Your task to perform on an android device: Clear all items from cart on newegg. Add "usb-a to usb-b" to the cart on newegg Image 0: 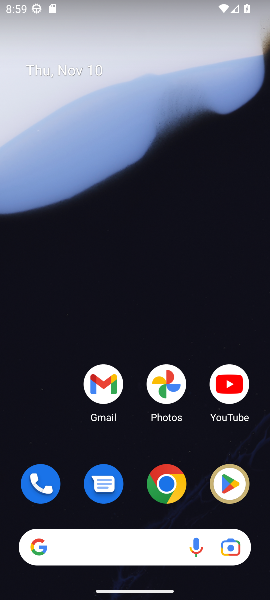
Step 0: click (167, 487)
Your task to perform on an android device: Clear all items from cart on newegg. Add "usb-a to usb-b" to the cart on newegg Image 1: 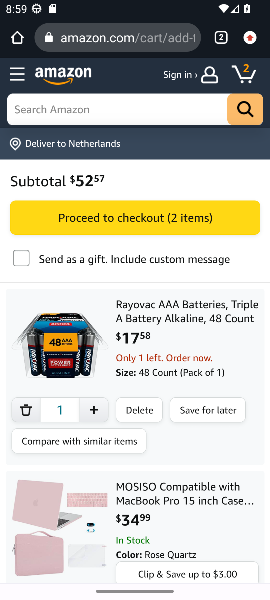
Step 1: click (110, 38)
Your task to perform on an android device: Clear all items from cart on newegg. Add "usb-a to usb-b" to the cart on newegg Image 2: 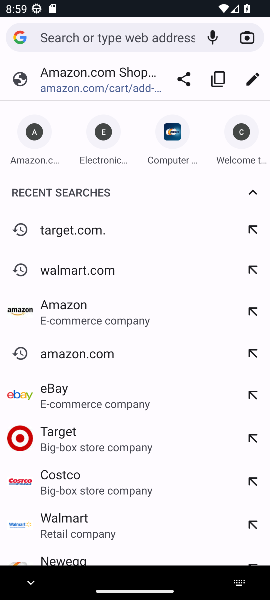
Step 2: type "newegg.com"
Your task to perform on an android device: Clear all items from cart on newegg. Add "usb-a to usb-b" to the cart on newegg Image 3: 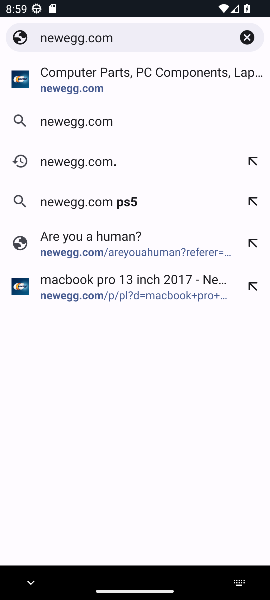
Step 3: click (30, 89)
Your task to perform on an android device: Clear all items from cart on newegg. Add "usb-a to usb-b" to the cart on newegg Image 4: 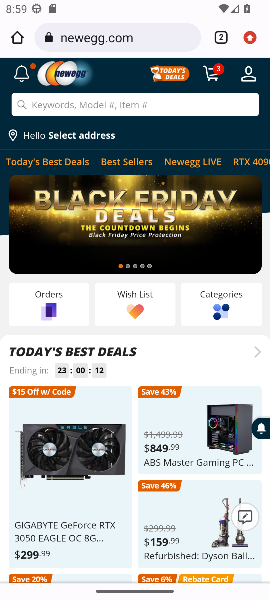
Step 4: click (214, 77)
Your task to perform on an android device: Clear all items from cart on newegg. Add "usb-a to usb-b" to the cart on newegg Image 5: 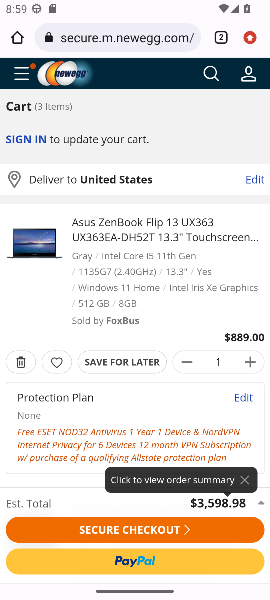
Step 5: click (23, 361)
Your task to perform on an android device: Clear all items from cart on newegg. Add "usb-a to usb-b" to the cart on newegg Image 6: 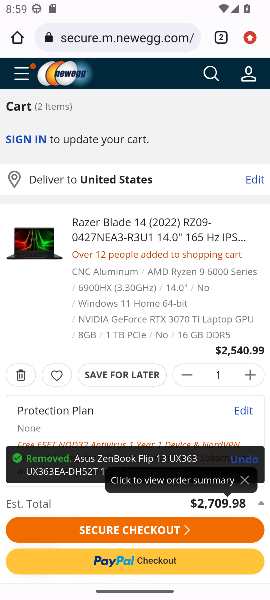
Step 6: click (18, 373)
Your task to perform on an android device: Clear all items from cart on newegg. Add "usb-a to usb-b" to the cart on newegg Image 7: 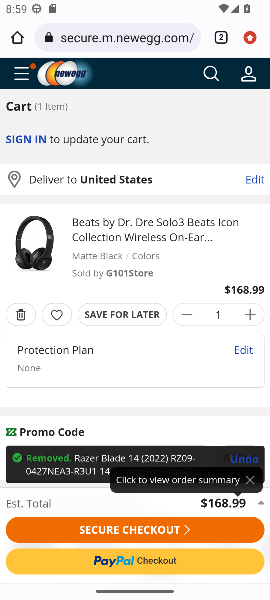
Step 7: click (22, 308)
Your task to perform on an android device: Clear all items from cart on newegg. Add "usb-a to usb-b" to the cart on newegg Image 8: 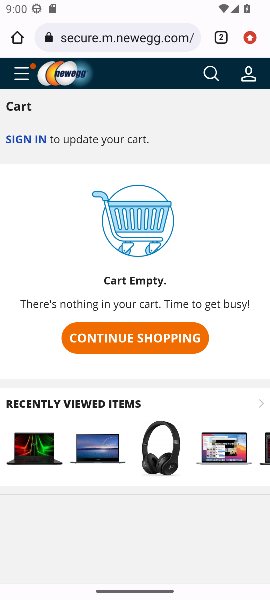
Step 8: click (135, 342)
Your task to perform on an android device: Clear all items from cart on newegg. Add "usb-a to usb-b" to the cart on newegg Image 9: 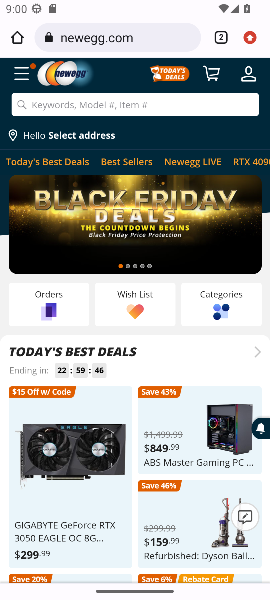
Step 9: click (158, 99)
Your task to perform on an android device: Clear all items from cart on newegg. Add "usb-a to usb-b" to the cart on newegg Image 10: 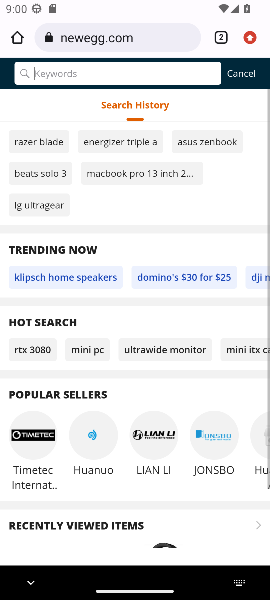
Step 10: type "usb-a to usb-b"
Your task to perform on an android device: Clear all items from cart on newegg. Add "usb-a to usb-b" to the cart on newegg Image 11: 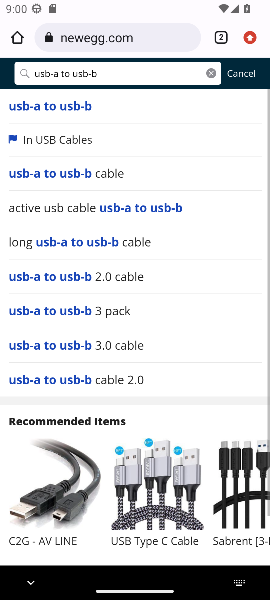
Step 11: click (76, 111)
Your task to perform on an android device: Clear all items from cart on newegg. Add "usb-a to usb-b" to the cart on newegg Image 12: 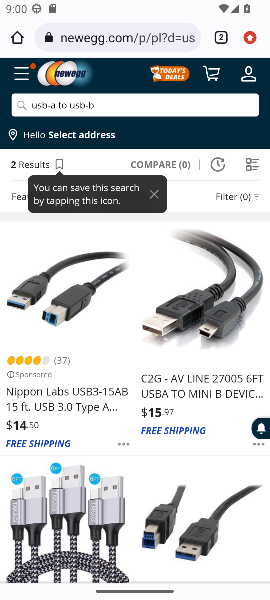
Step 12: click (96, 345)
Your task to perform on an android device: Clear all items from cart on newegg. Add "usb-a to usb-b" to the cart on newegg Image 13: 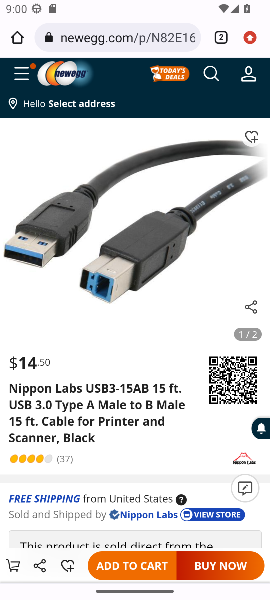
Step 13: click (152, 560)
Your task to perform on an android device: Clear all items from cart on newegg. Add "usb-a to usb-b" to the cart on newegg Image 14: 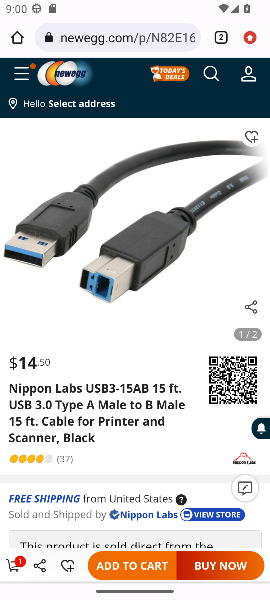
Step 14: task complete